Your task to perform on an android device: star an email in the gmail app Image 0: 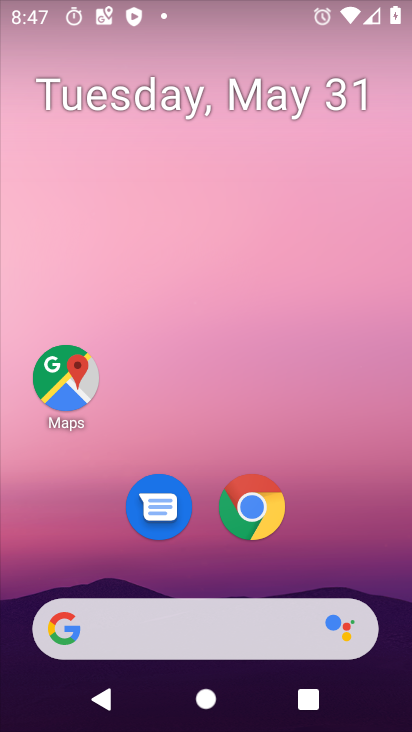
Step 0: drag from (334, 555) to (254, 2)
Your task to perform on an android device: star an email in the gmail app Image 1: 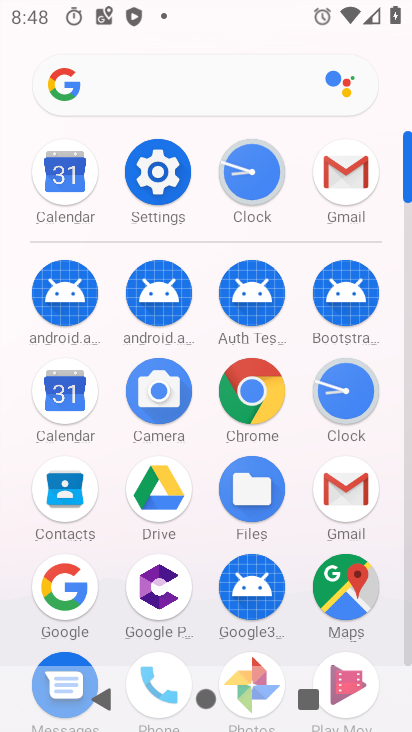
Step 1: click (341, 168)
Your task to perform on an android device: star an email in the gmail app Image 2: 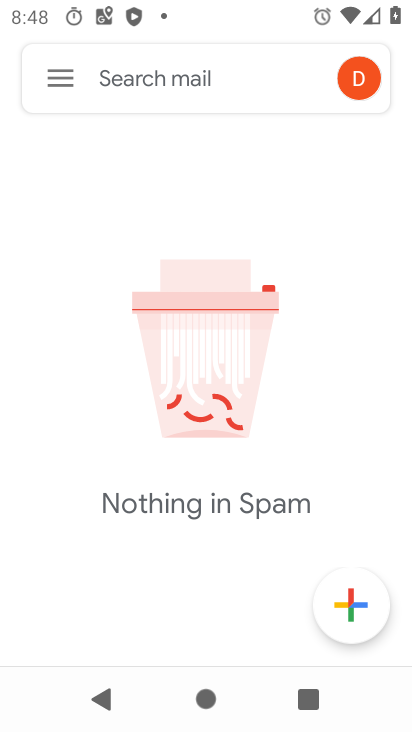
Step 2: click (60, 81)
Your task to perform on an android device: star an email in the gmail app Image 3: 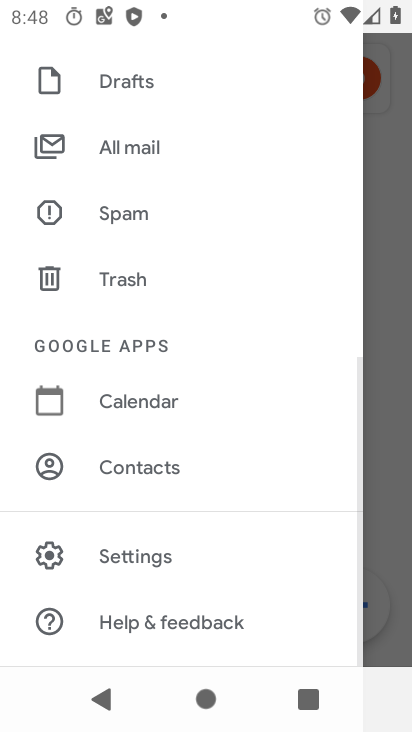
Step 3: click (141, 149)
Your task to perform on an android device: star an email in the gmail app Image 4: 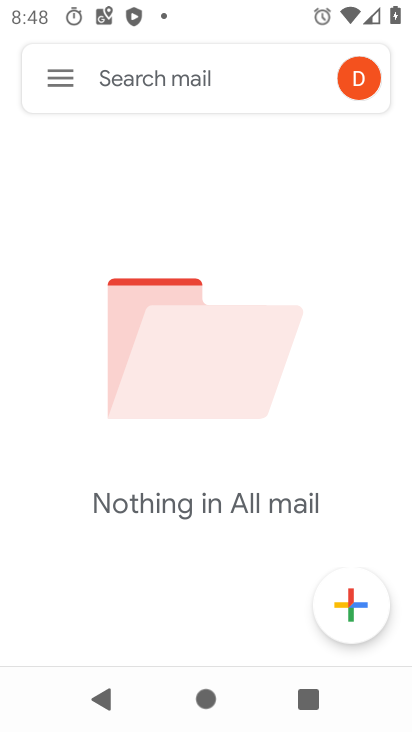
Step 4: drag from (201, 311) to (227, 398)
Your task to perform on an android device: star an email in the gmail app Image 5: 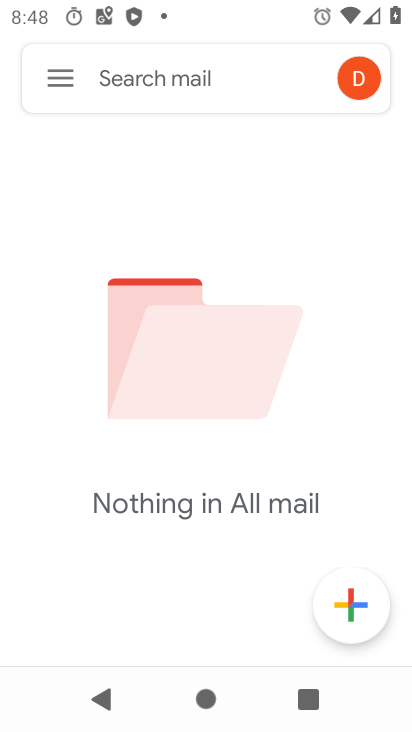
Step 5: drag from (227, 400) to (200, 190)
Your task to perform on an android device: star an email in the gmail app Image 6: 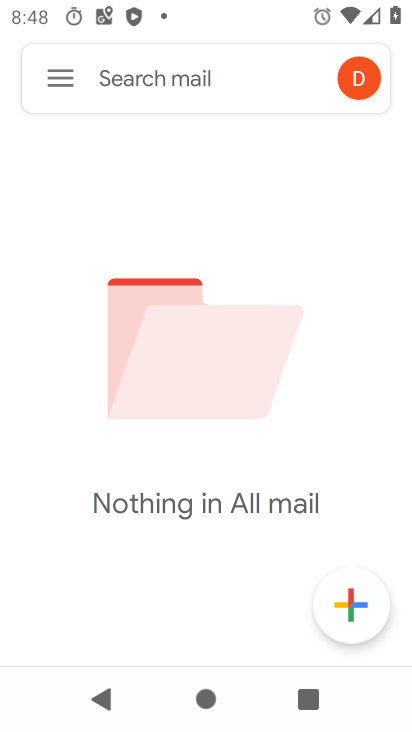
Step 6: click (71, 82)
Your task to perform on an android device: star an email in the gmail app Image 7: 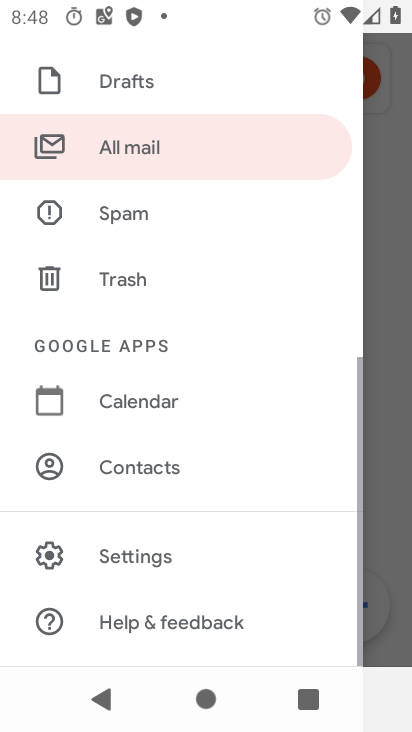
Step 7: drag from (165, 172) to (210, 519)
Your task to perform on an android device: star an email in the gmail app Image 8: 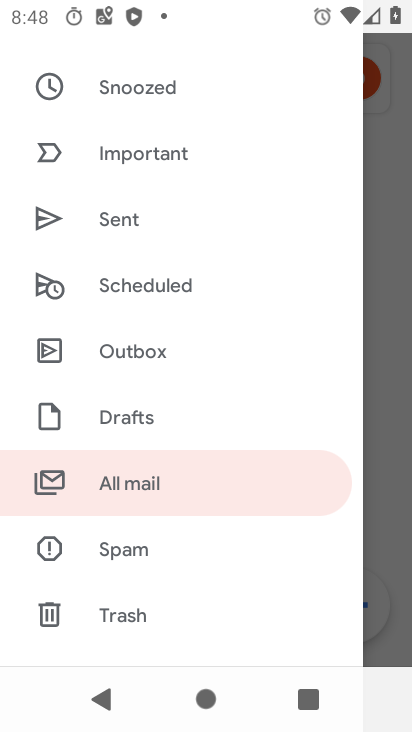
Step 8: drag from (146, 154) to (145, 432)
Your task to perform on an android device: star an email in the gmail app Image 9: 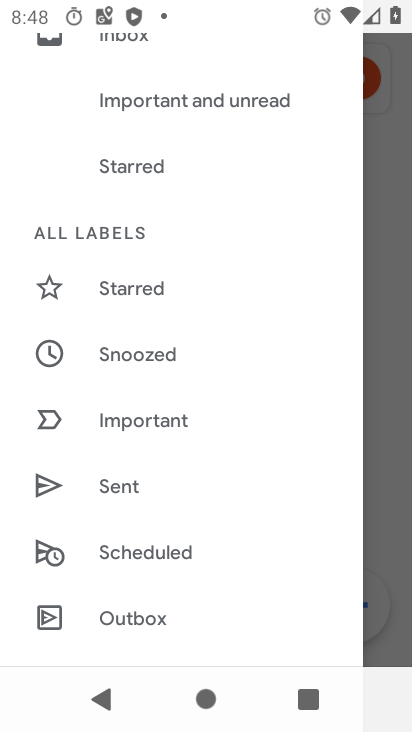
Step 9: click (164, 474)
Your task to perform on an android device: star an email in the gmail app Image 10: 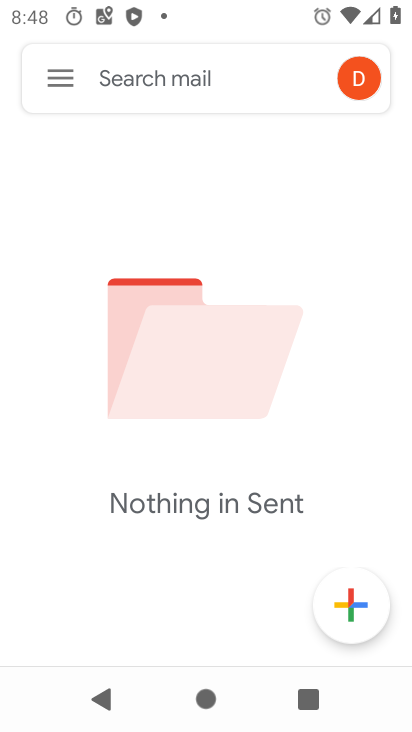
Step 10: task complete